Your task to perform on an android device: open app "Instagram" (install if not already installed) and enter user name: "nobler@yahoo.com" and password: "foraging" Image 0: 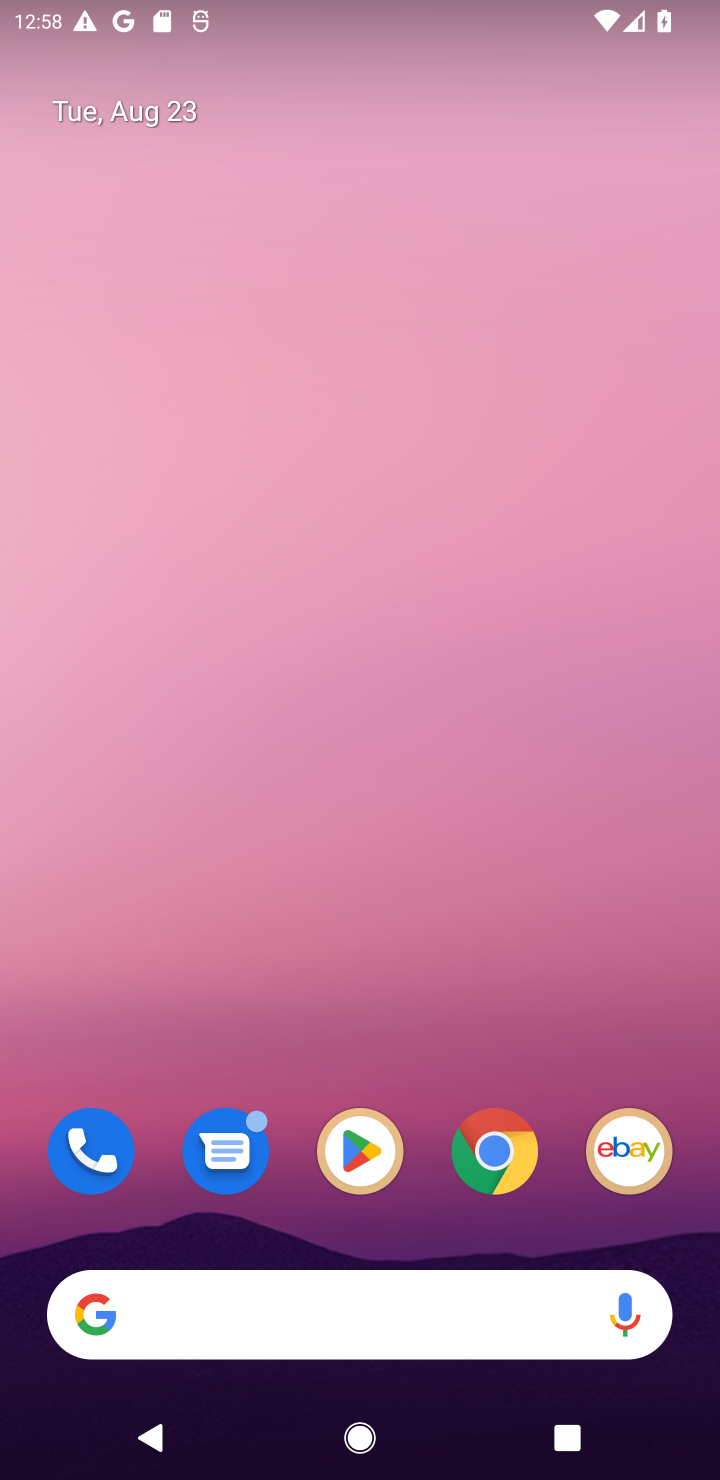
Step 0: click (359, 1141)
Your task to perform on an android device: open app "Instagram" (install if not already installed) and enter user name: "nobler@yahoo.com" and password: "foraging" Image 1: 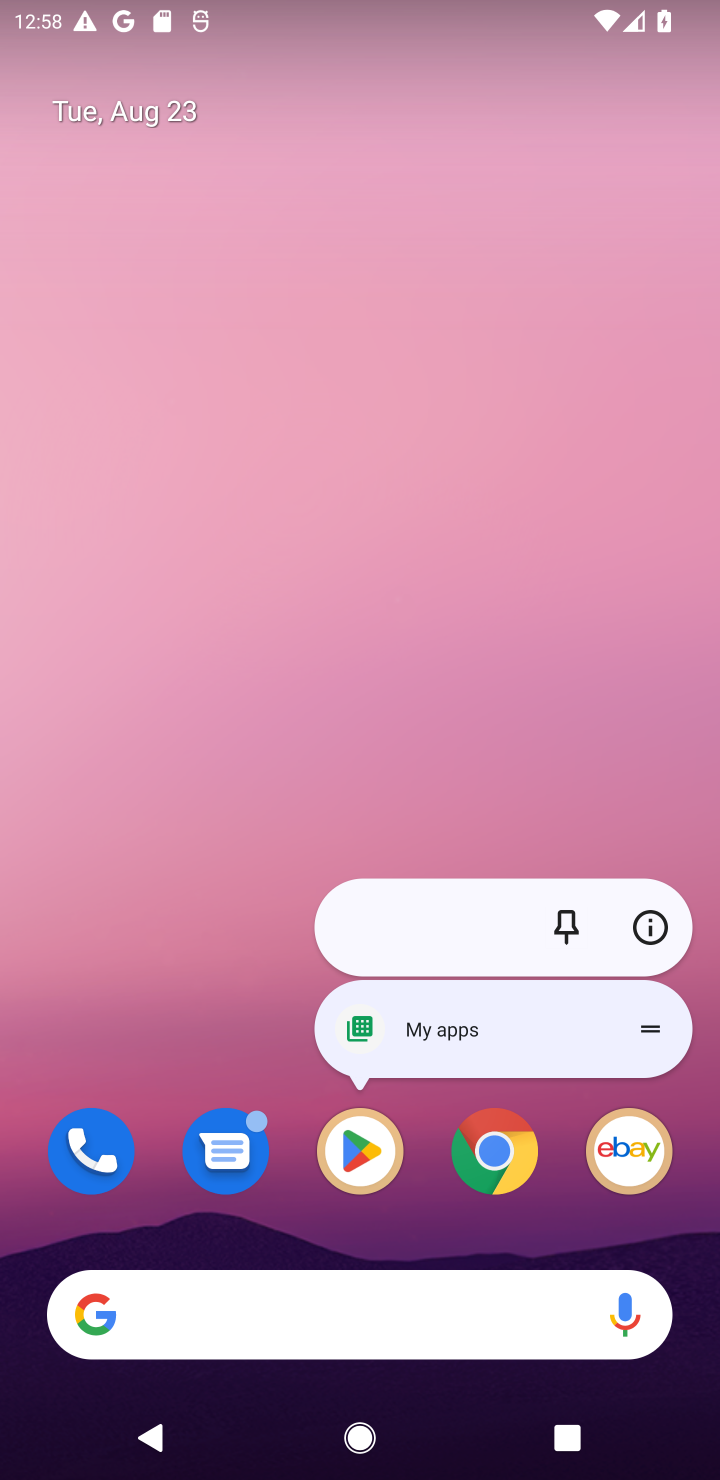
Step 1: click (359, 1141)
Your task to perform on an android device: open app "Instagram" (install if not already installed) and enter user name: "nobler@yahoo.com" and password: "foraging" Image 2: 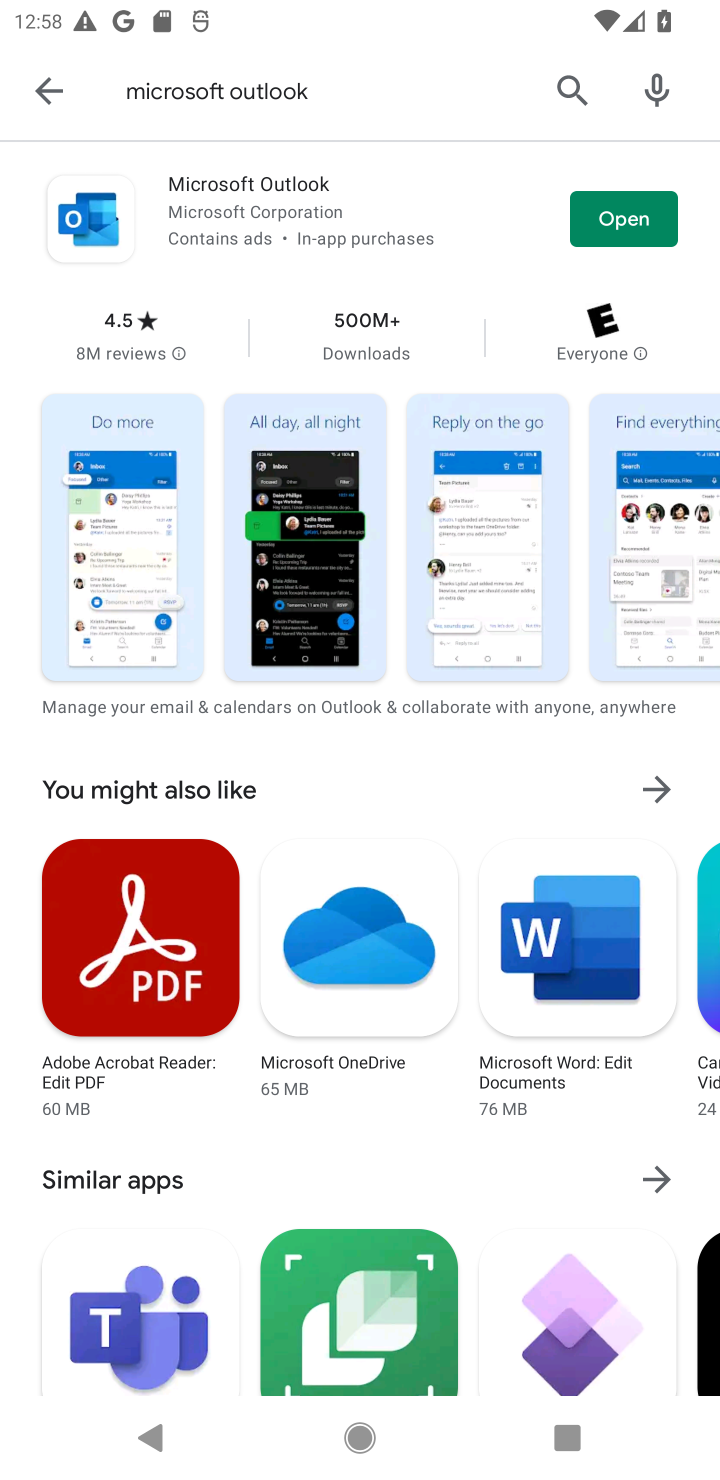
Step 2: click (570, 84)
Your task to perform on an android device: open app "Instagram" (install if not already installed) and enter user name: "nobler@yahoo.com" and password: "foraging" Image 3: 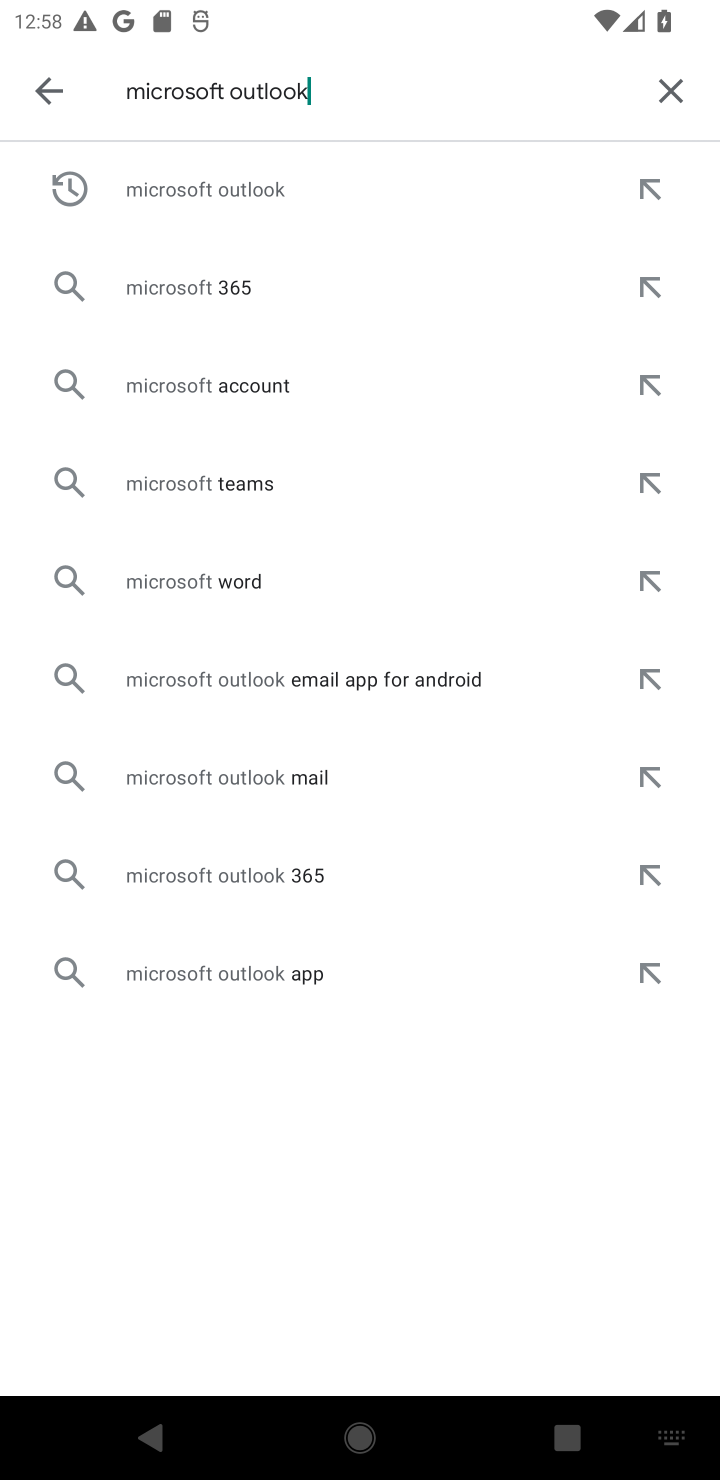
Step 3: click (670, 99)
Your task to perform on an android device: open app "Instagram" (install if not already installed) and enter user name: "nobler@yahoo.com" and password: "foraging" Image 4: 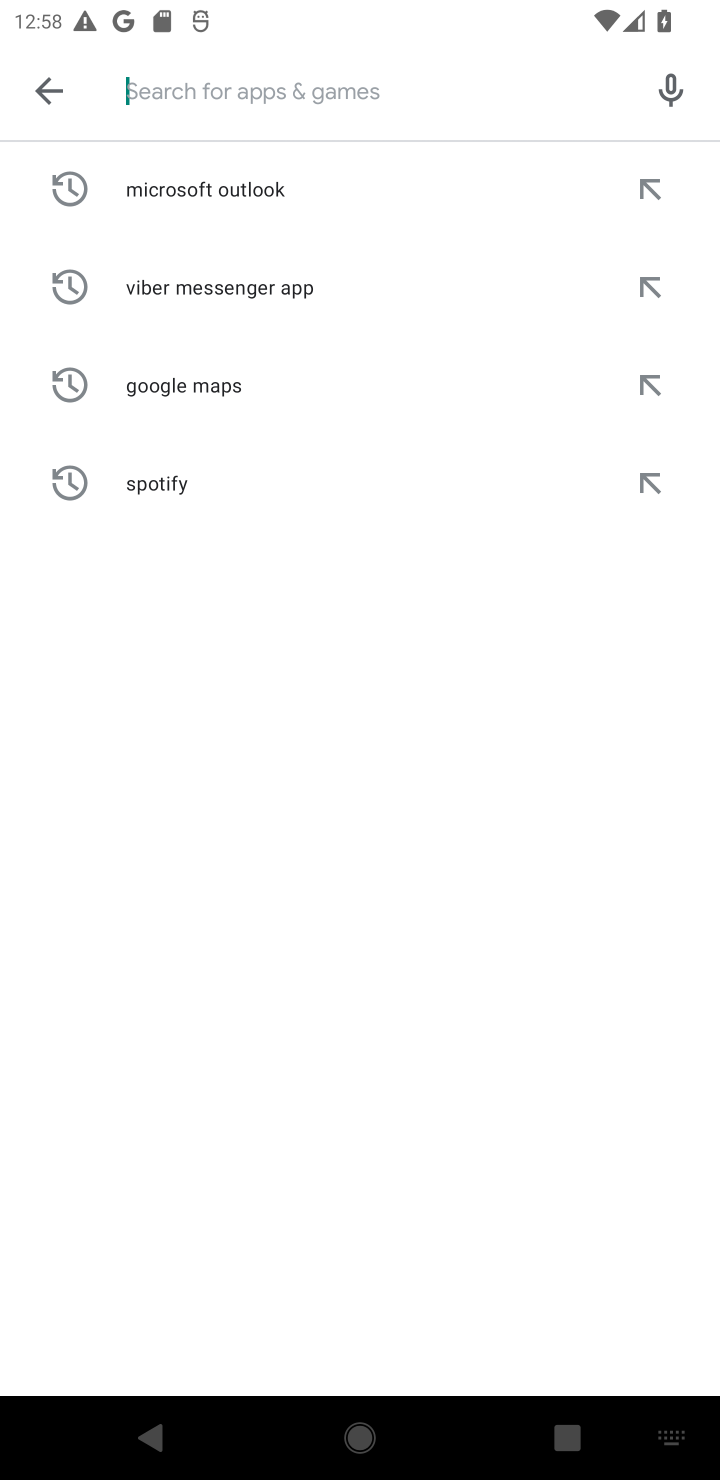
Step 4: type "Instagram"
Your task to perform on an android device: open app "Instagram" (install if not already installed) and enter user name: "nobler@yahoo.com" and password: "foraging" Image 5: 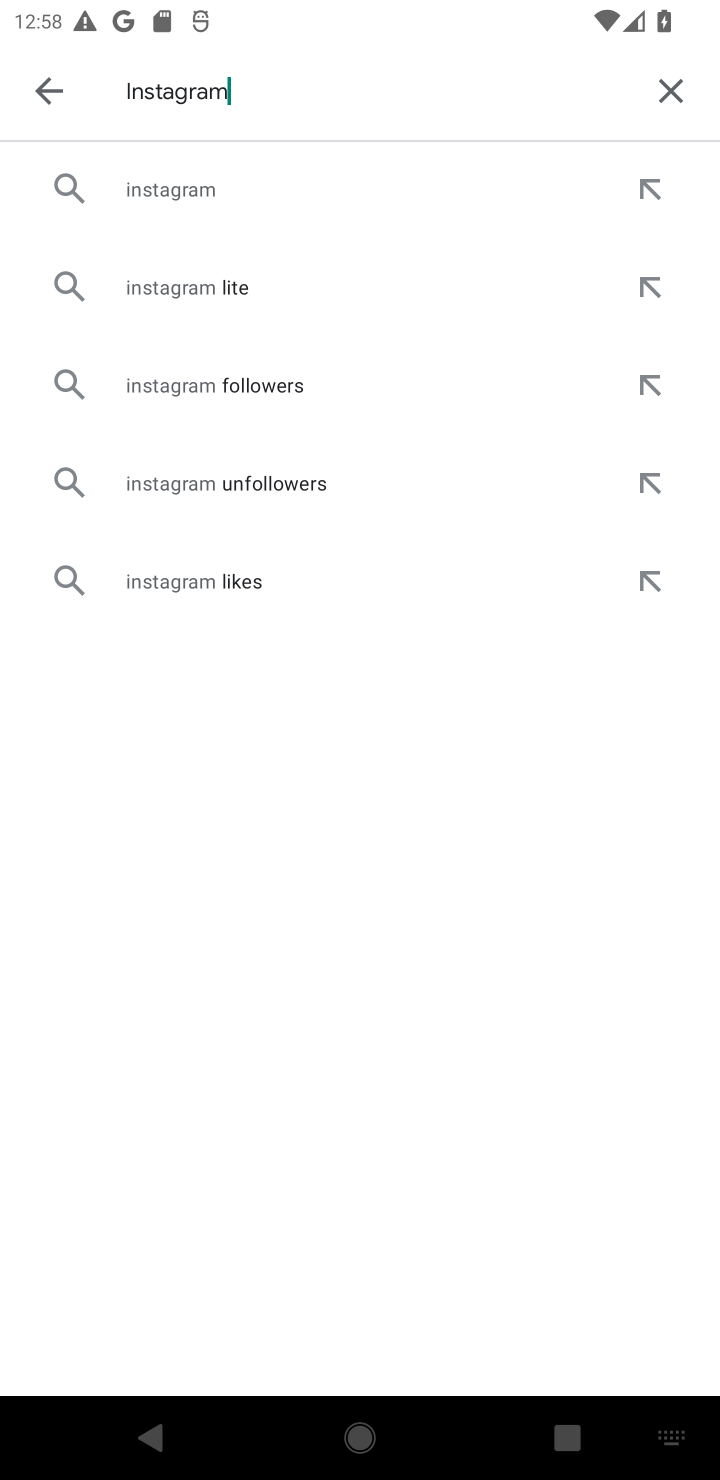
Step 5: click (175, 180)
Your task to perform on an android device: open app "Instagram" (install if not already installed) and enter user name: "nobler@yahoo.com" and password: "foraging" Image 6: 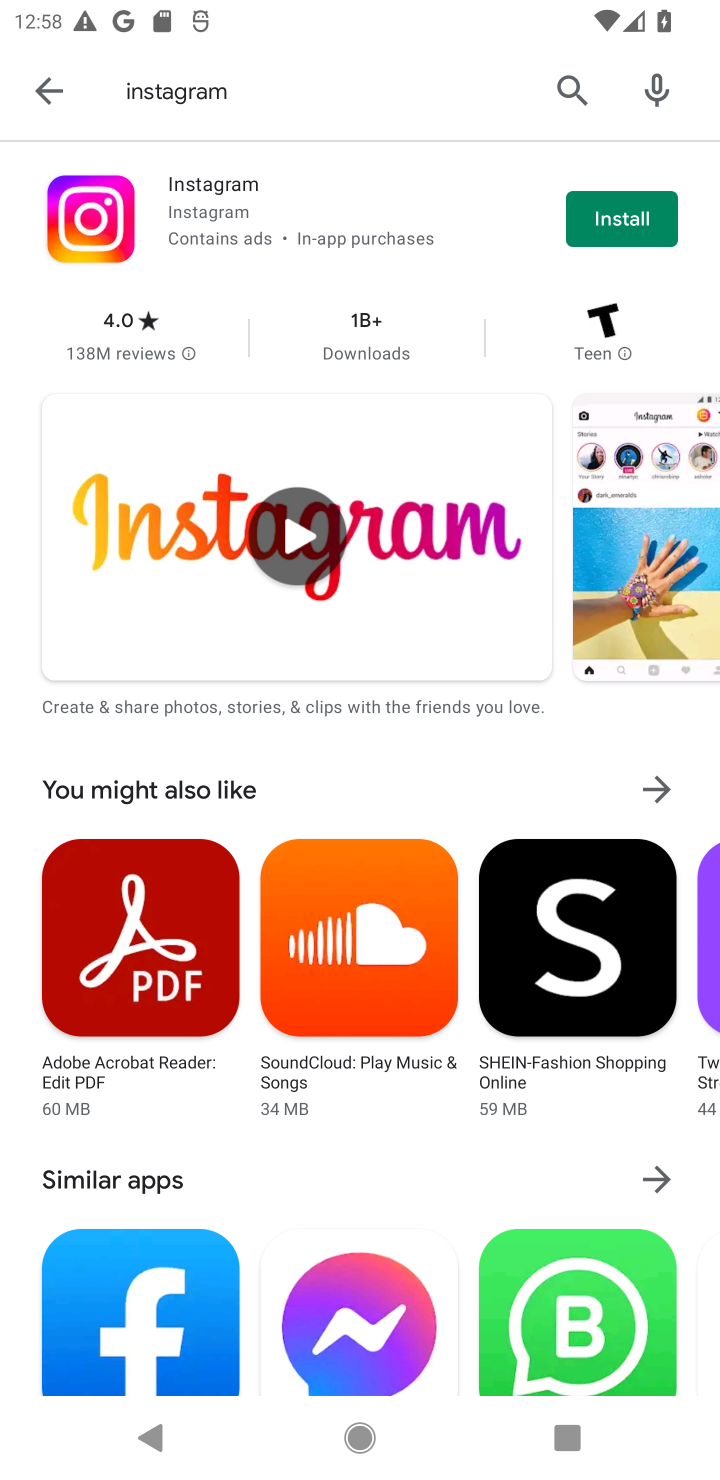
Step 6: click (618, 218)
Your task to perform on an android device: open app "Instagram" (install if not already installed) and enter user name: "nobler@yahoo.com" and password: "foraging" Image 7: 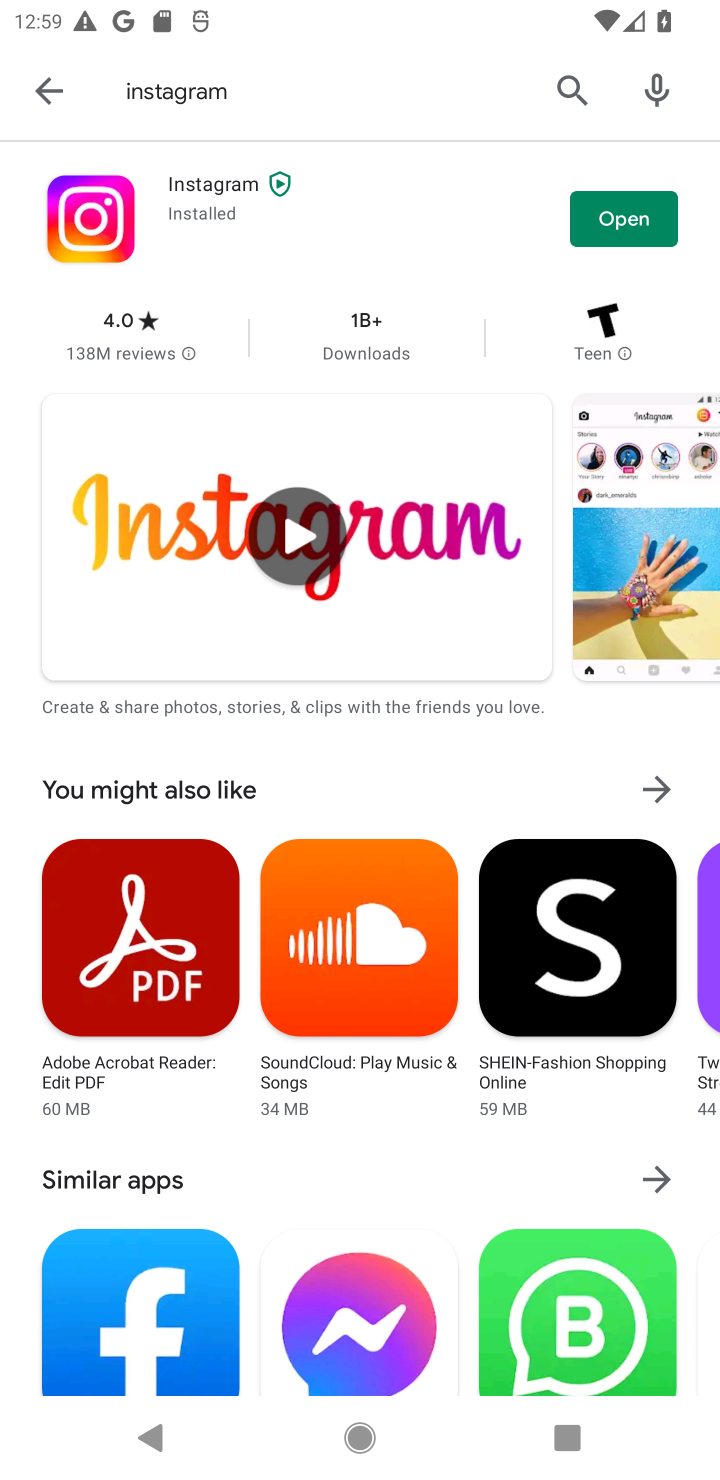
Step 7: click (618, 218)
Your task to perform on an android device: open app "Instagram" (install if not already installed) and enter user name: "nobler@yahoo.com" and password: "foraging" Image 8: 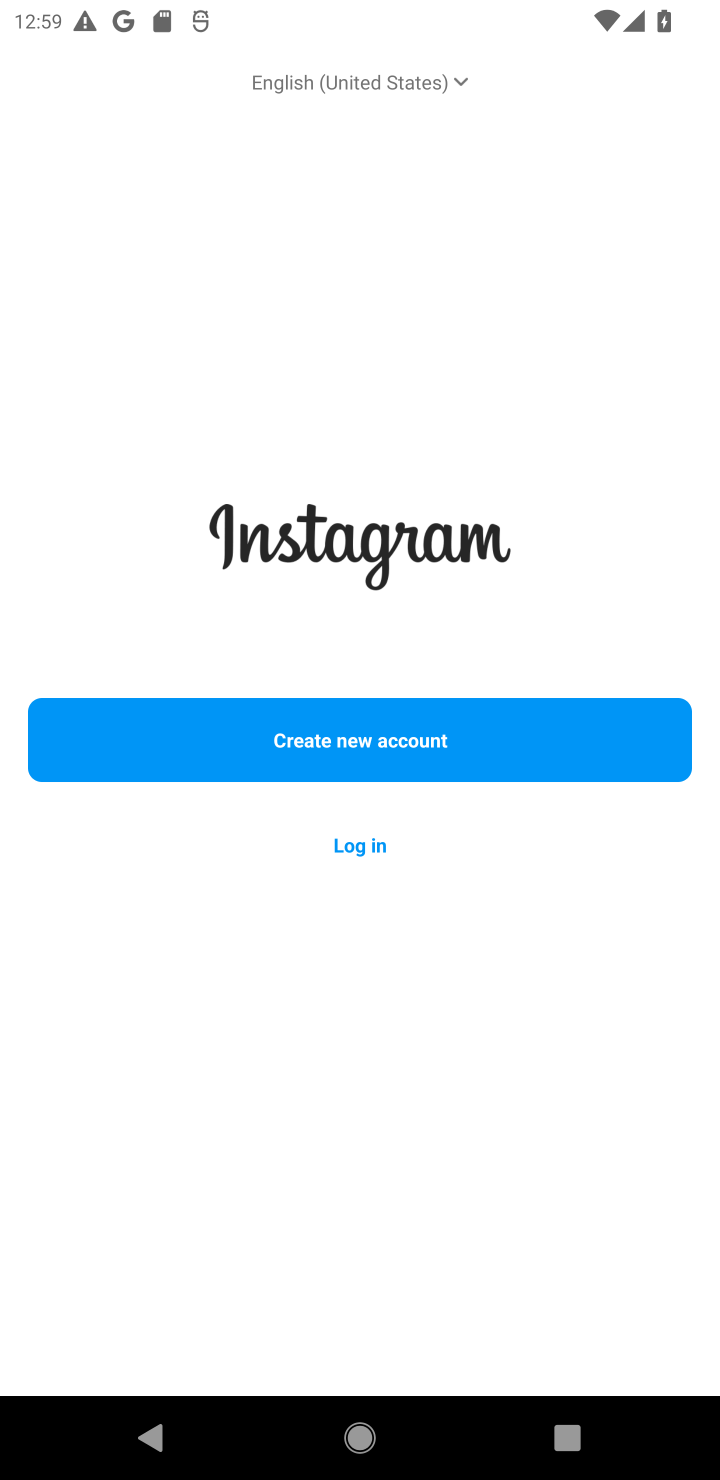
Step 8: task complete